Your task to perform on an android device: add a contact Image 0: 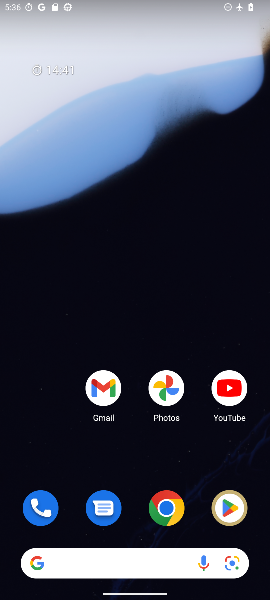
Step 0: click (266, 376)
Your task to perform on an android device: add a contact Image 1: 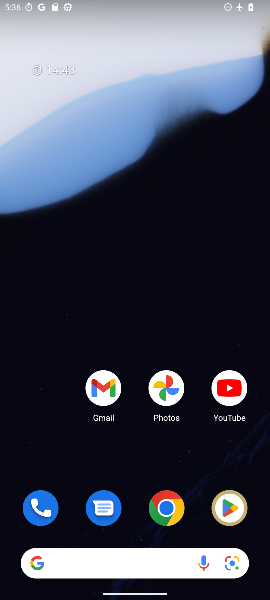
Step 1: drag from (145, 537) to (147, 135)
Your task to perform on an android device: add a contact Image 2: 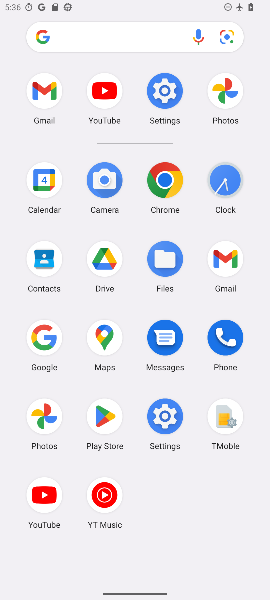
Step 2: click (38, 257)
Your task to perform on an android device: add a contact Image 3: 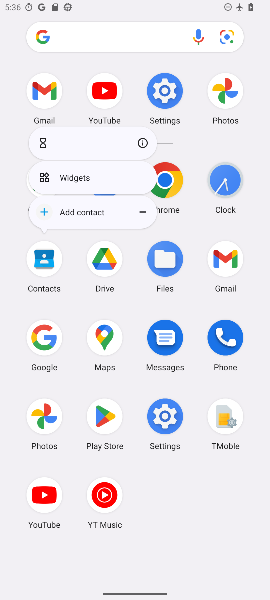
Step 3: click (138, 139)
Your task to perform on an android device: add a contact Image 4: 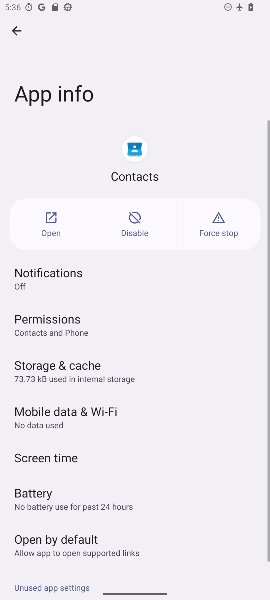
Step 4: click (46, 218)
Your task to perform on an android device: add a contact Image 5: 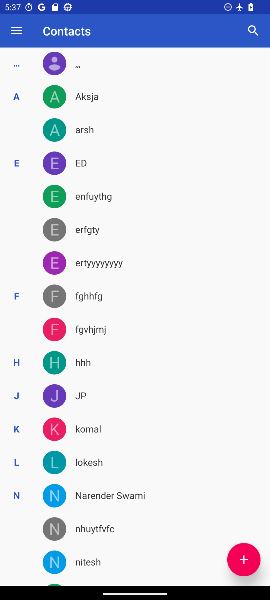
Step 5: click (239, 566)
Your task to perform on an android device: add a contact Image 6: 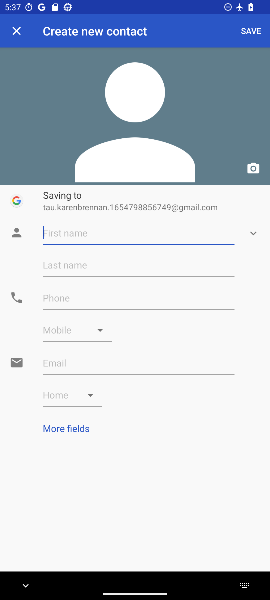
Step 6: type "kkjjjm"
Your task to perform on an android device: add a contact Image 7: 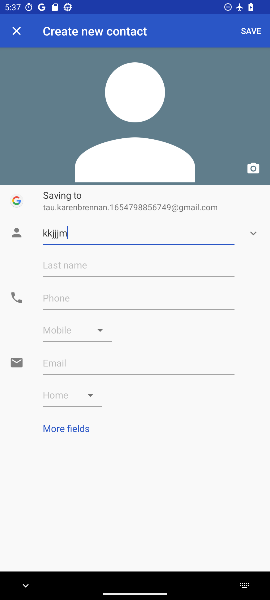
Step 7: click (238, 27)
Your task to perform on an android device: add a contact Image 8: 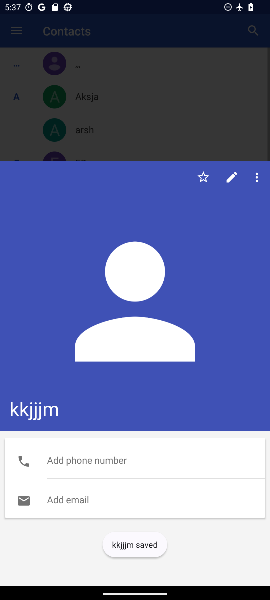
Step 8: task complete